Your task to perform on an android device: turn pop-ups on in chrome Image 0: 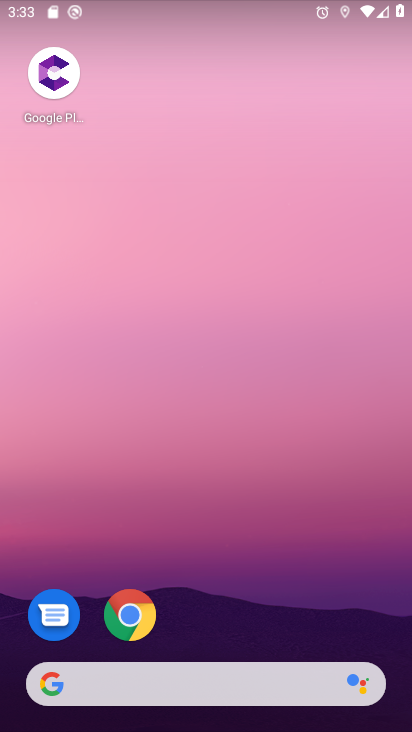
Step 0: click (135, 616)
Your task to perform on an android device: turn pop-ups on in chrome Image 1: 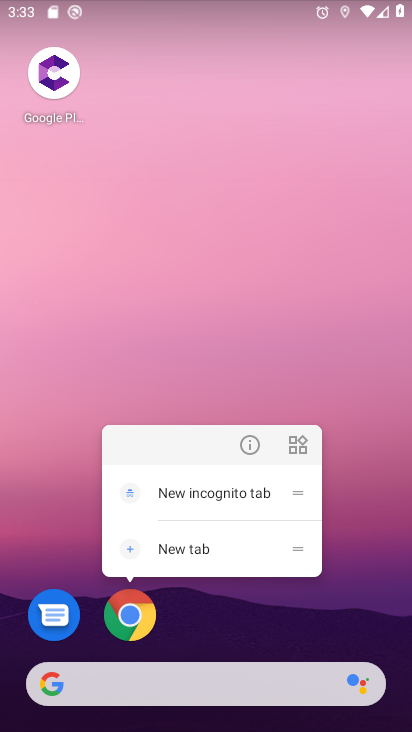
Step 1: click (135, 616)
Your task to perform on an android device: turn pop-ups on in chrome Image 2: 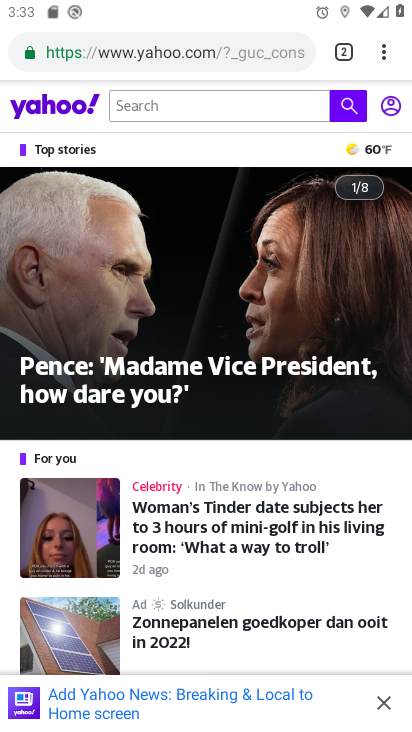
Step 2: drag from (385, 53) to (207, 633)
Your task to perform on an android device: turn pop-ups on in chrome Image 3: 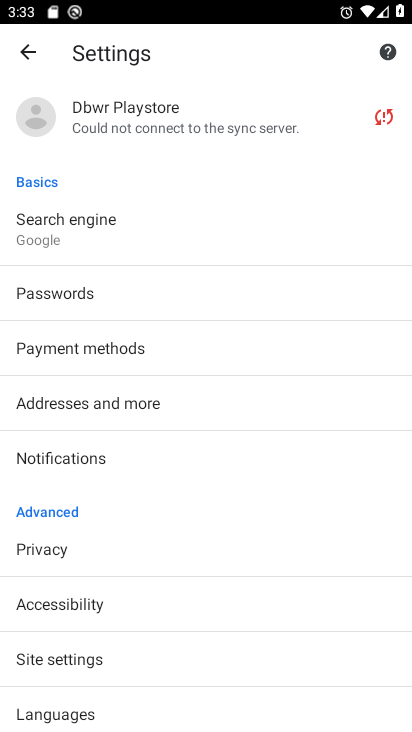
Step 3: click (75, 663)
Your task to perform on an android device: turn pop-ups on in chrome Image 4: 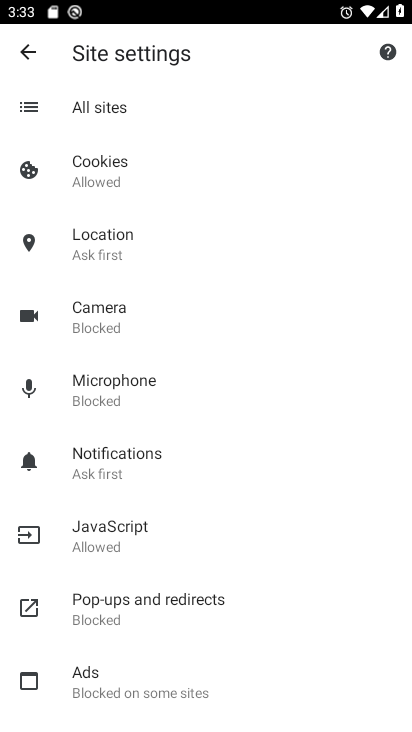
Step 4: click (127, 609)
Your task to perform on an android device: turn pop-ups on in chrome Image 5: 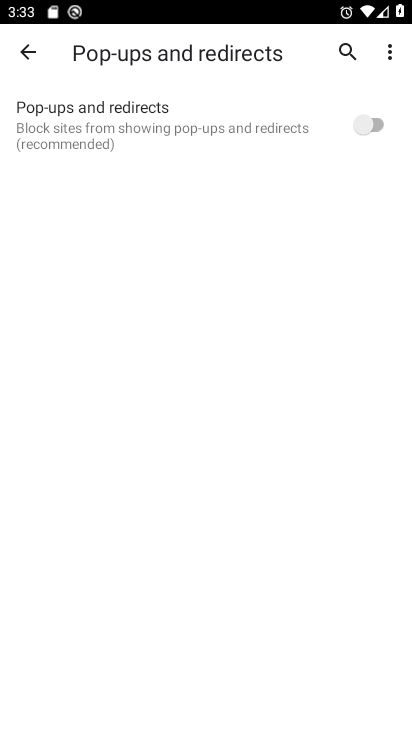
Step 5: click (367, 126)
Your task to perform on an android device: turn pop-ups on in chrome Image 6: 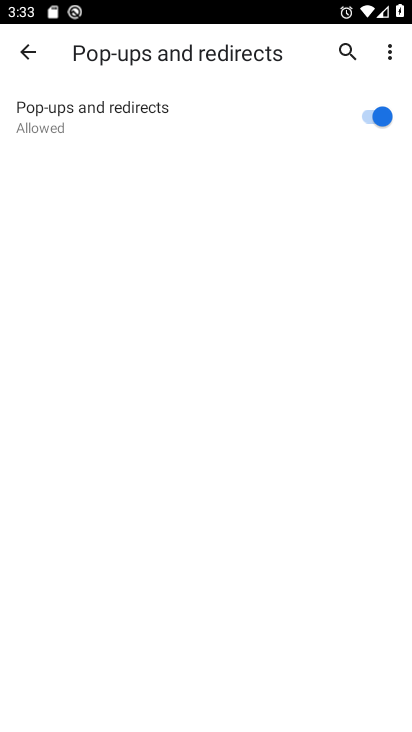
Step 6: task complete